Your task to perform on an android device: change notification settings in the gmail app Image 0: 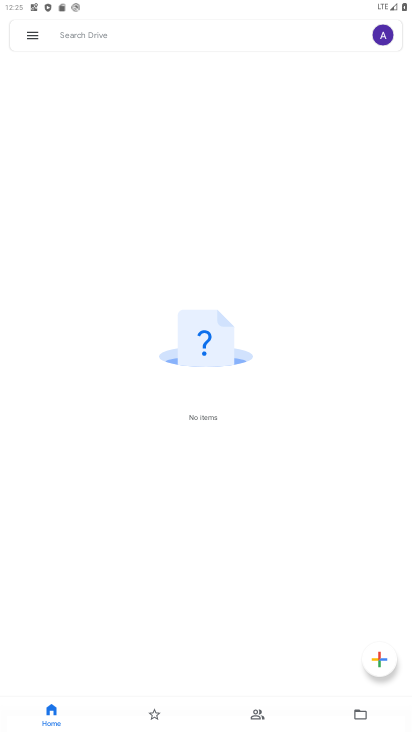
Step 0: drag from (253, 652) to (288, 406)
Your task to perform on an android device: change notification settings in the gmail app Image 1: 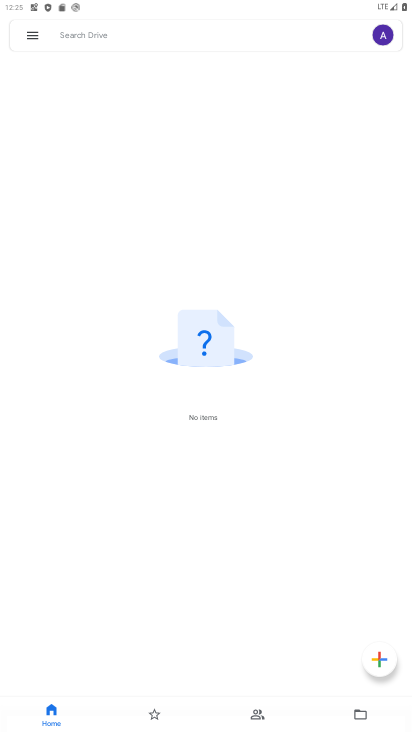
Step 1: drag from (224, 721) to (267, 316)
Your task to perform on an android device: change notification settings in the gmail app Image 2: 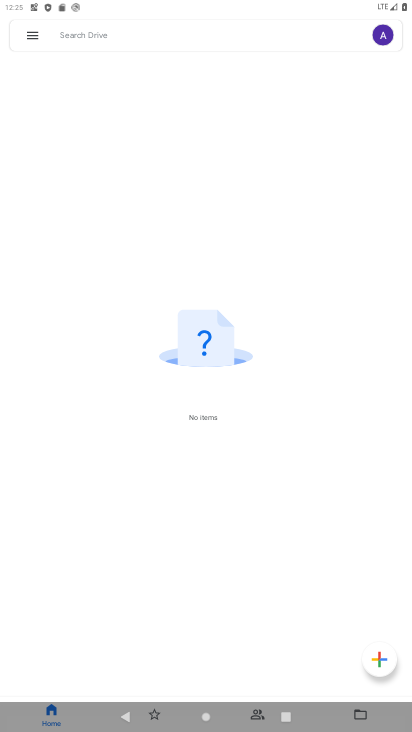
Step 2: click (285, 716)
Your task to perform on an android device: change notification settings in the gmail app Image 3: 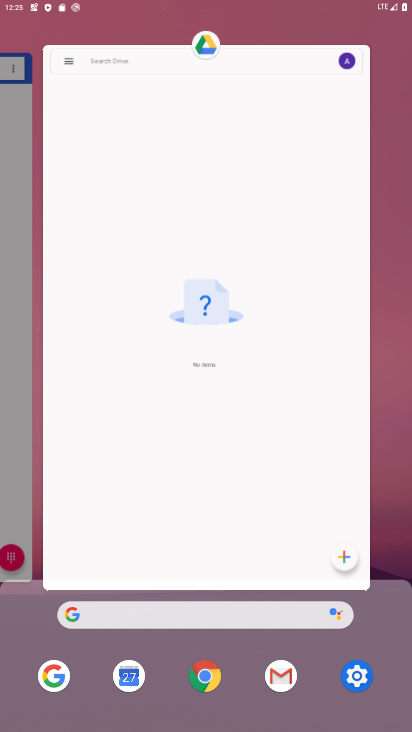
Step 3: drag from (206, 511) to (286, 24)
Your task to perform on an android device: change notification settings in the gmail app Image 4: 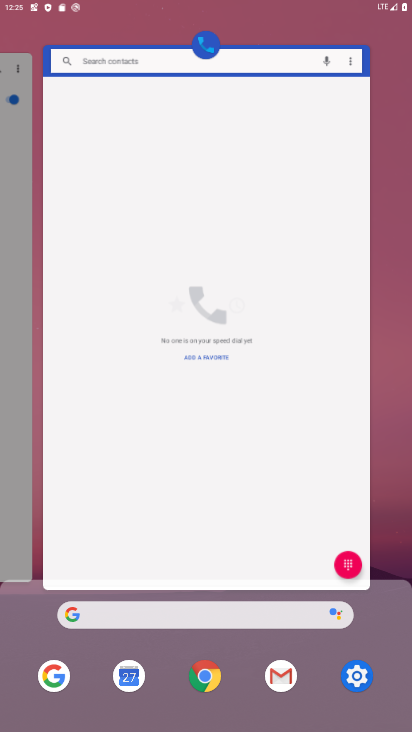
Step 4: drag from (207, 399) to (231, 16)
Your task to perform on an android device: change notification settings in the gmail app Image 5: 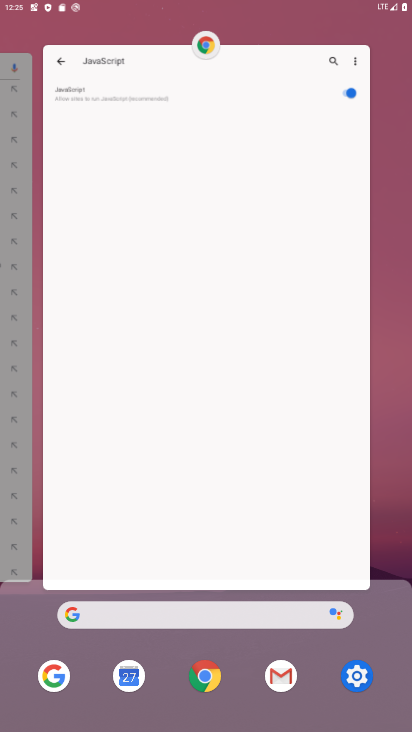
Step 5: drag from (169, 406) to (212, 3)
Your task to perform on an android device: change notification settings in the gmail app Image 6: 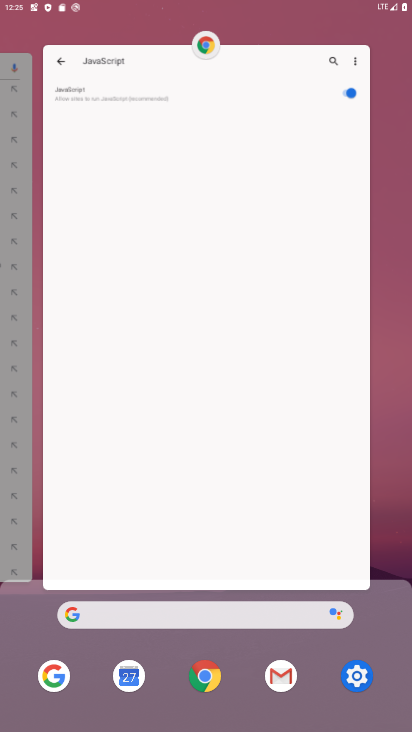
Step 6: drag from (161, 374) to (180, 17)
Your task to perform on an android device: change notification settings in the gmail app Image 7: 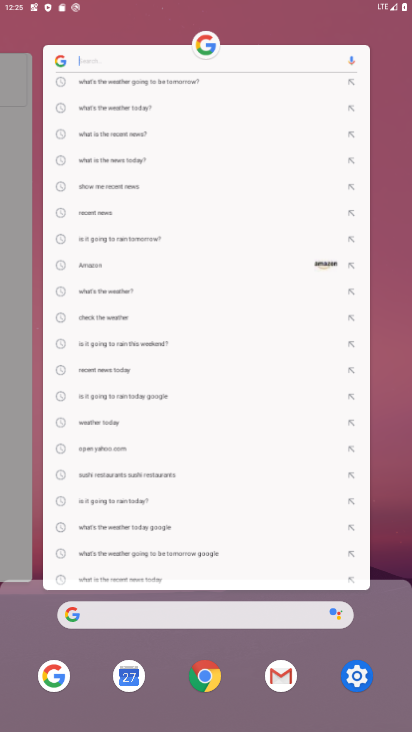
Step 7: drag from (137, 526) to (194, 0)
Your task to perform on an android device: change notification settings in the gmail app Image 8: 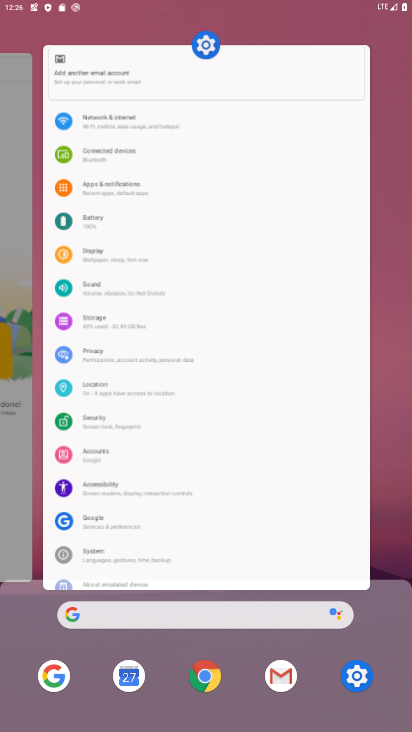
Step 8: drag from (142, 416) to (285, 2)
Your task to perform on an android device: change notification settings in the gmail app Image 9: 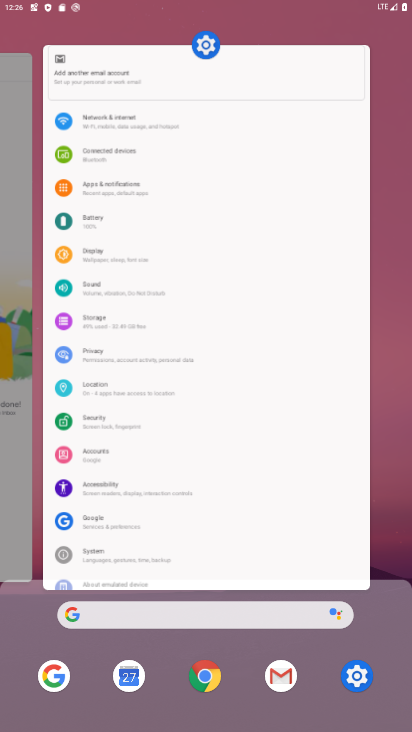
Step 9: drag from (143, 513) to (159, 89)
Your task to perform on an android device: change notification settings in the gmail app Image 10: 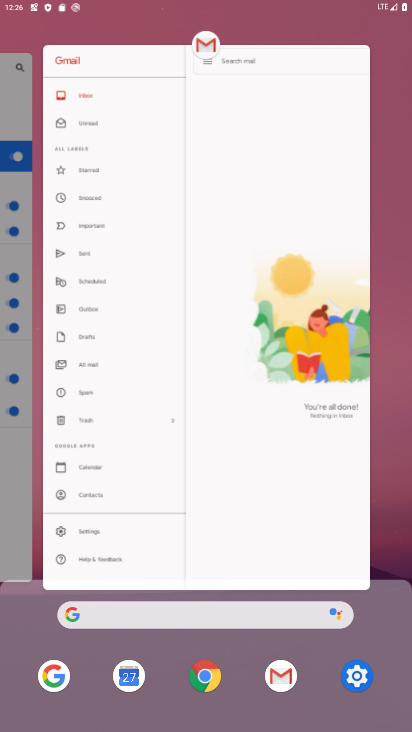
Step 10: drag from (118, 500) to (107, 22)
Your task to perform on an android device: change notification settings in the gmail app Image 11: 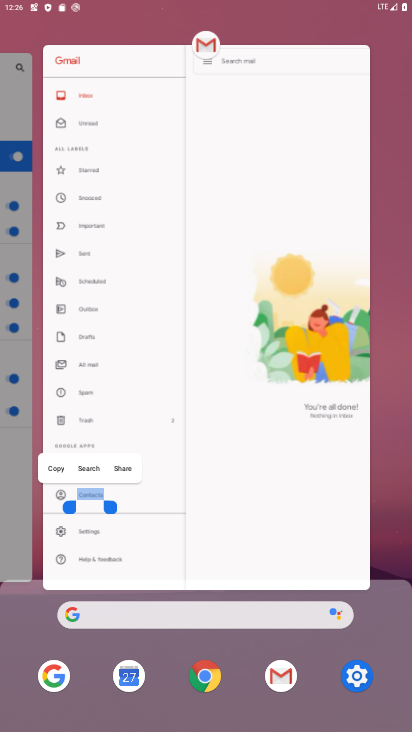
Step 11: drag from (263, 402) to (238, 8)
Your task to perform on an android device: change notification settings in the gmail app Image 12: 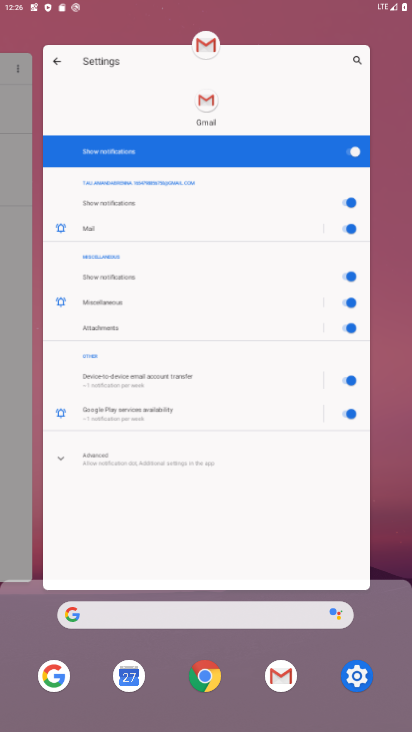
Step 12: drag from (215, 485) to (184, 5)
Your task to perform on an android device: change notification settings in the gmail app Image 13: 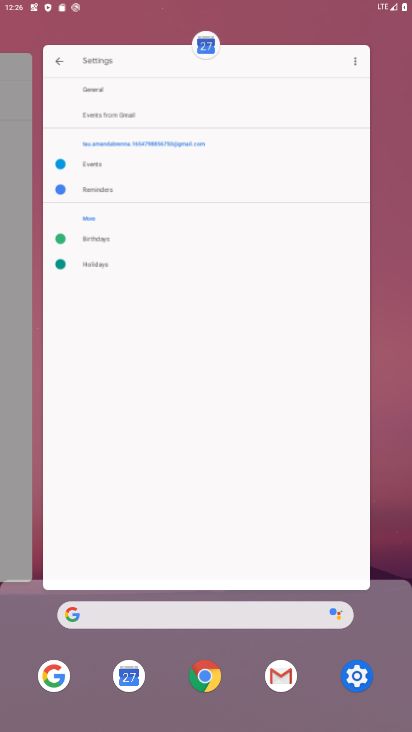
Step 13: drag from (197, 514) to (199, 57)
Your task to perform on an android device: change notification settings in the gmail app Image 14: 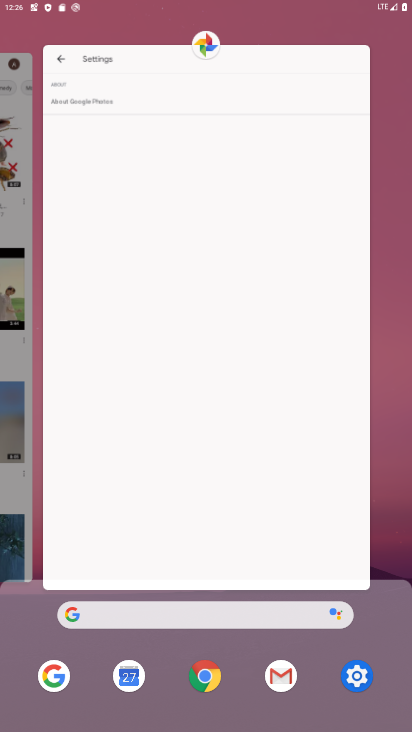
Step 14: drag from (191, 513) to (182, 27)
Your task to perform on an android device: change notification settings in the gmail app Image 15: 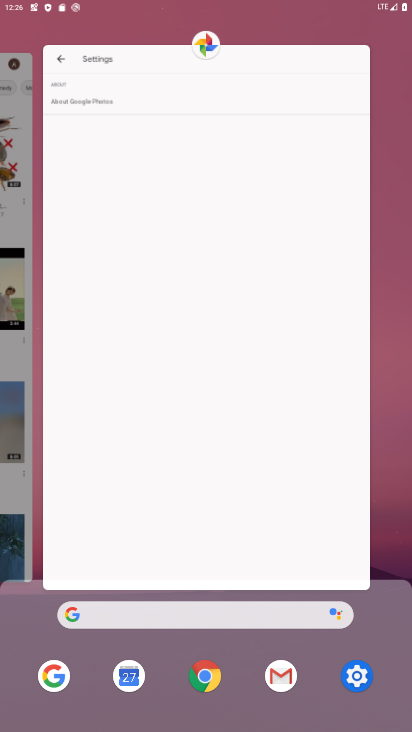
Step 15: drag from (178, 531) to (153, 52)
Your task to perform on an android device: change notification settings in the gmail app Image 16: 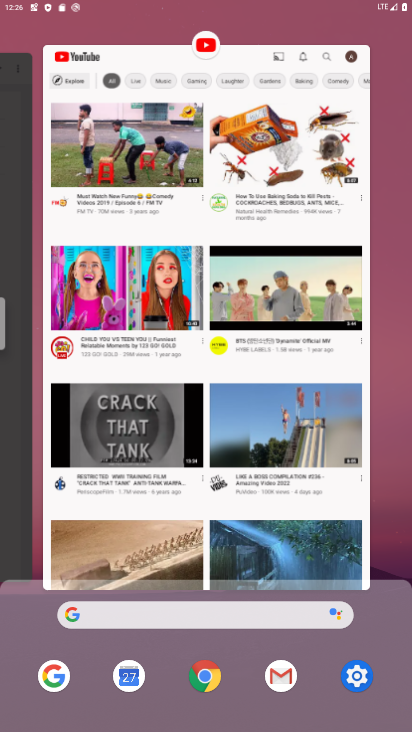
Step 16: drag from (207, 522) to (185, 10)
Your task to perform on an android device: change notification settings in the gmail app Image 17: 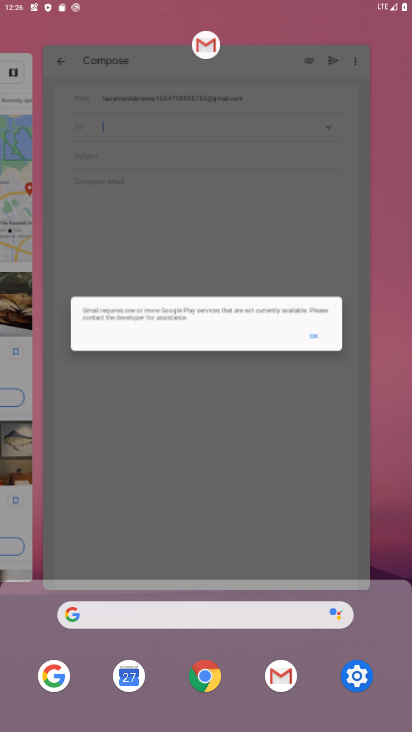
Step 17: click (280, 673)
Your task to perform on an android device: change notification settings in the gmail app Image 18: 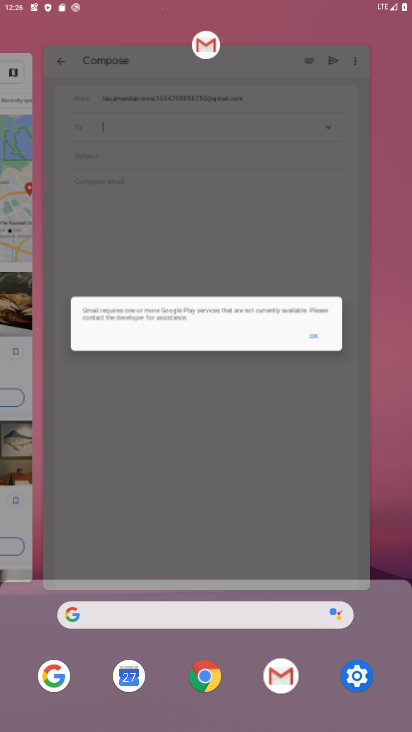
Step 18: click (230, 3)
Your task to perform on an android device: change notification settings in the gmail app Image 19: 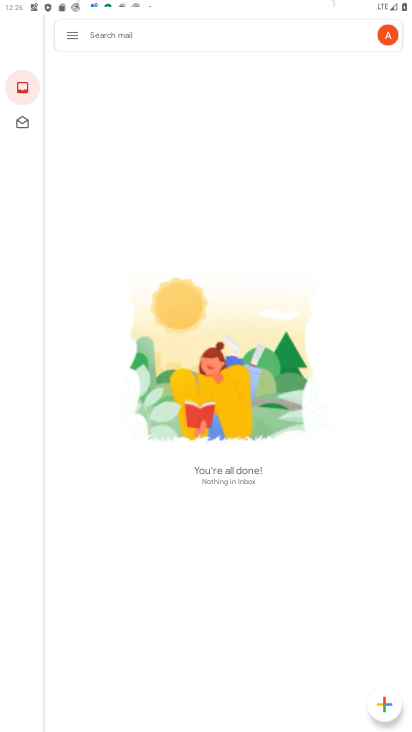
Step 19: drag from (164, 496) to (187, 16)
Your task to perform on an android device: change notification settings in the gmail app Image 20: 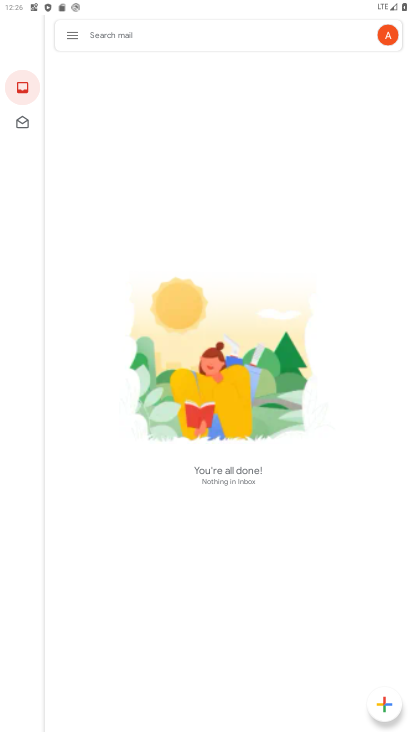
Step 20: click (72, 35)
Your task to perform on an android device: change notification settings in the gmail app Image 21: 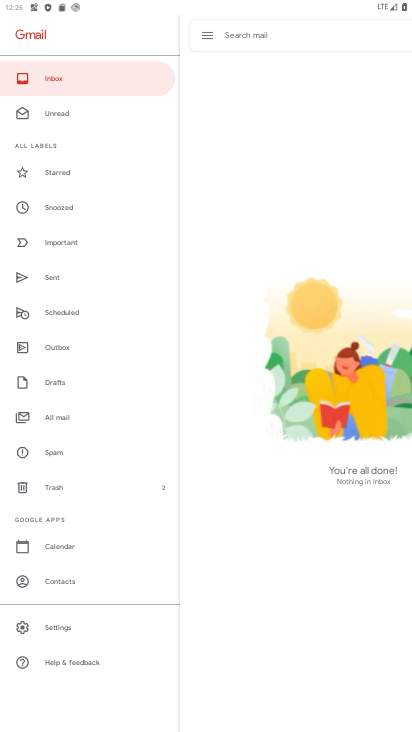
Step 21: click (30, 631)
Your task to perform on an android device: change notification settings in the gmail app Image 22: 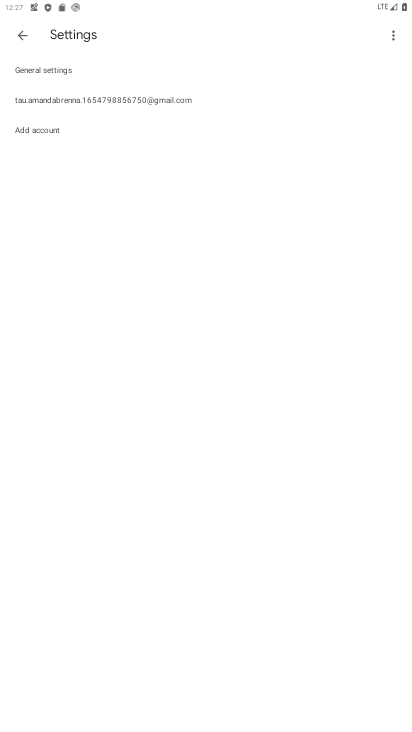
Step 22: click (122, 75)
Your task to perform on an android device: change notification settings in the gmail app Image 23: 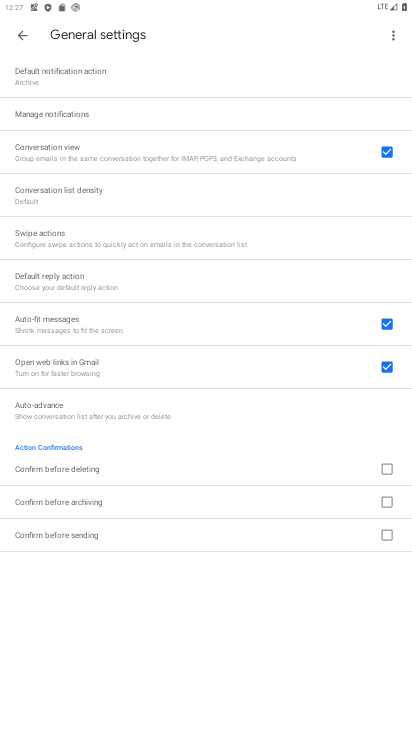
Step 23: click (55, 110)
Your task to perform on an android device: change notification settings in the gmail app Image 24: 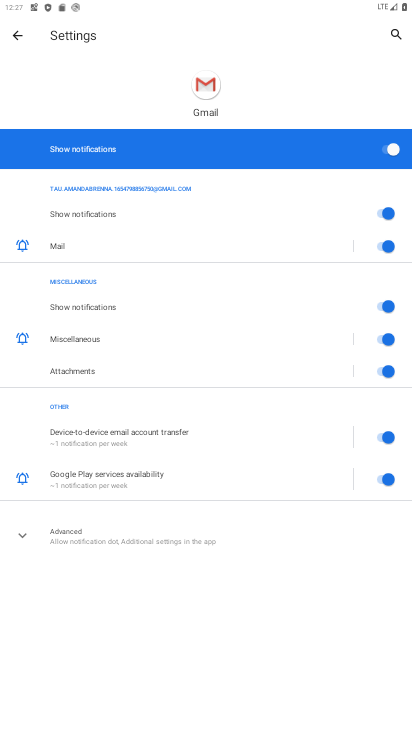
Step 24: task complete